Your task to perform on an android device: change the upload size in google photos Image 0: 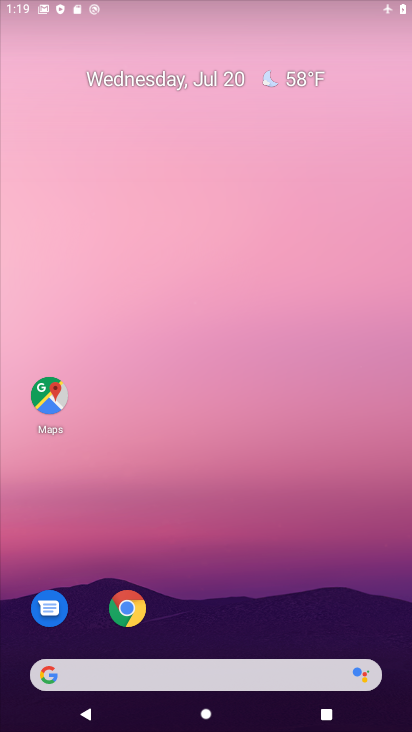
Step 0: drag from (252, 658) to (260, 313)
Your task to perform on an android device: change the upload size in google photos Image 1: 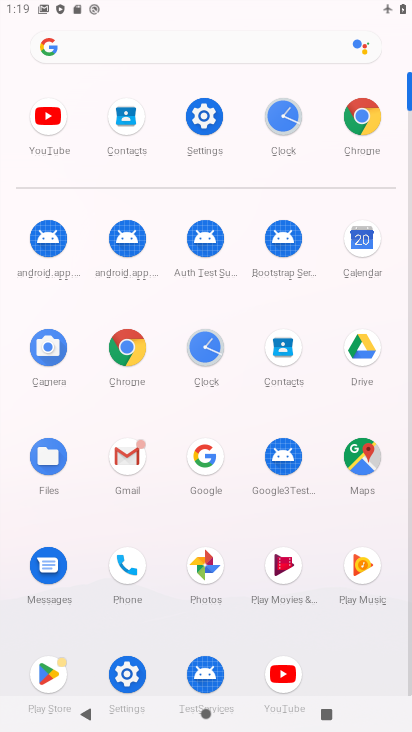
Step 1: click (208, 564)
Your task to perform on an android device: change the upload size in google photos Image 2: 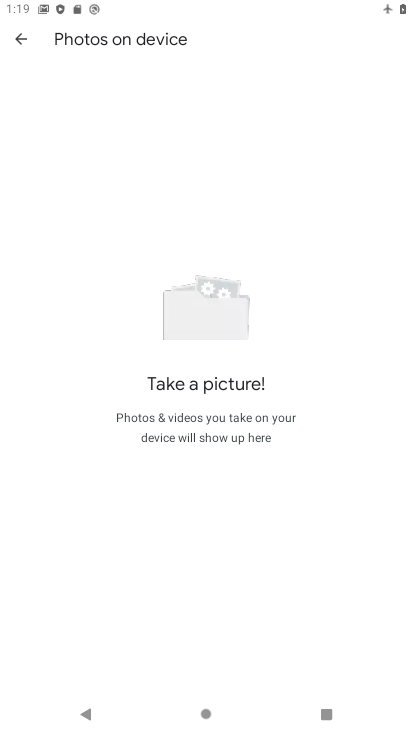
Step 2: click (22, 38)
Your task to perform on an android device: change the upload size in google photos Image 3: 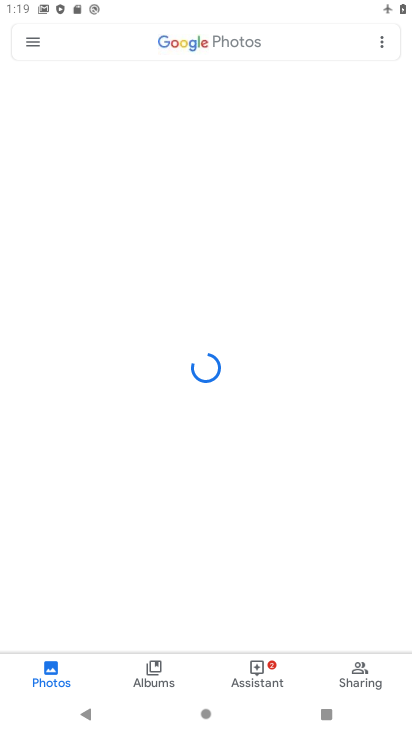
Step 3: click (26, 33)
Your task to perform on an android device: change the upload size in google photos Image 4: 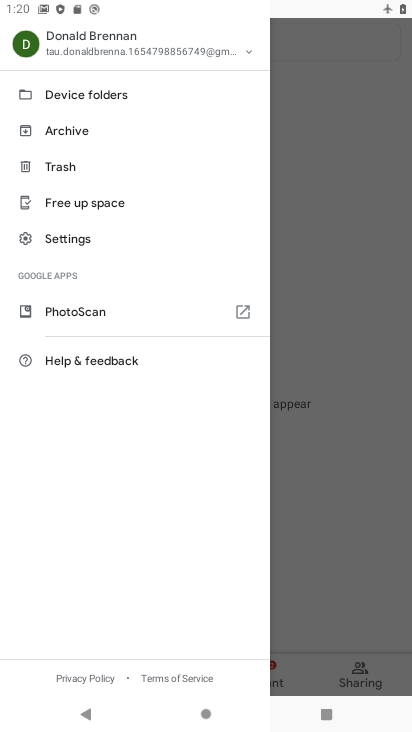
Step 4: click (71, 235)
Your task to perform on an android device: change the upload size in google photos Image 5: 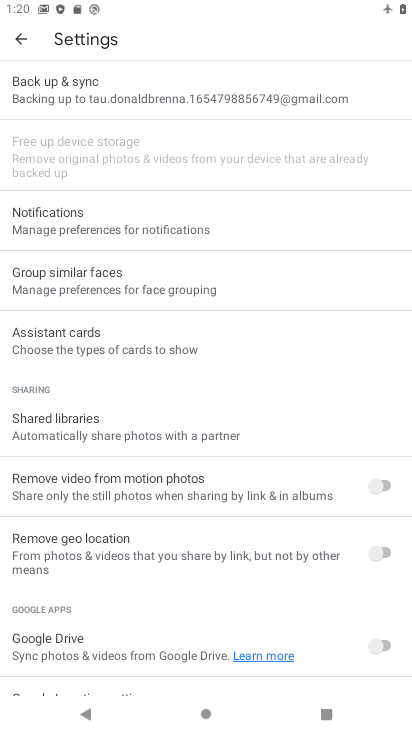
Step 5: click (47, 90)
Your task to perform on an android device: change the upload size in google photos Image 6: 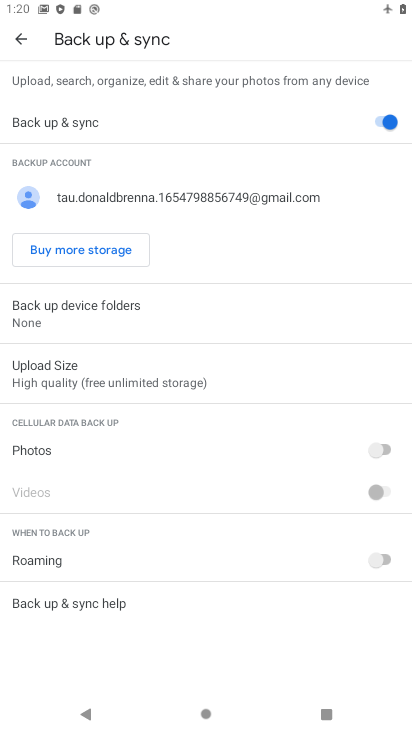
Step 6: click (70, 381)
Your task to perform on an android device: change the upload size in google photos Image 7: 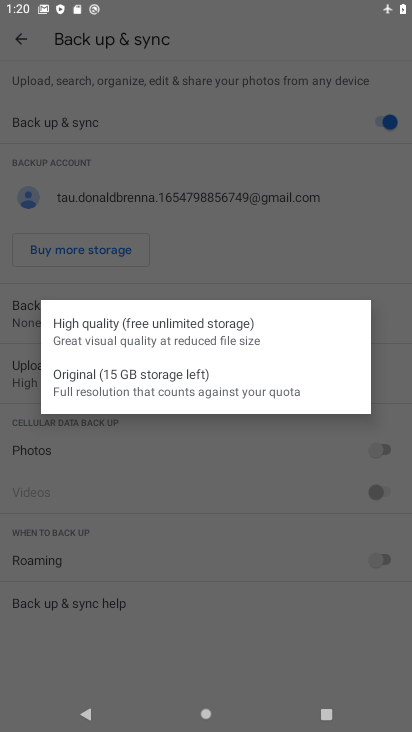
Step 7: click (93, 387)
Your task to perform on an android device: change the upload size in google photos Image 8: 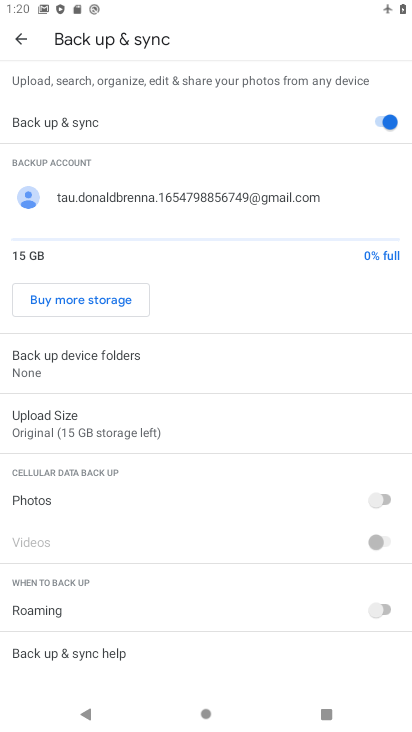
Step 8: task complete